Your task to perform on an android device: set the stopwatch Image 0: 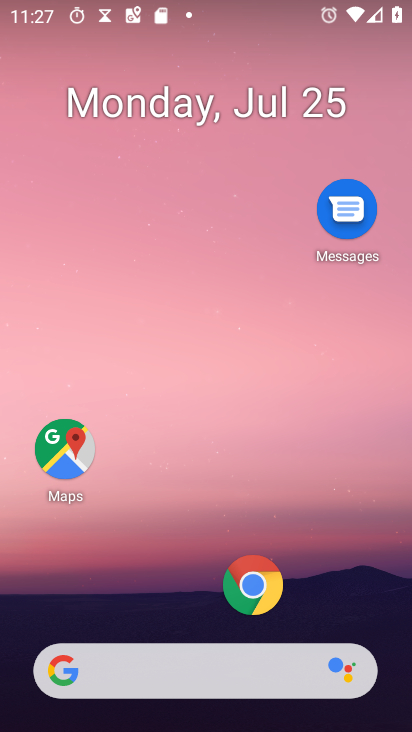
Step 0: press home button
Your task to perform on an android device: set the stopwatch Image 1: 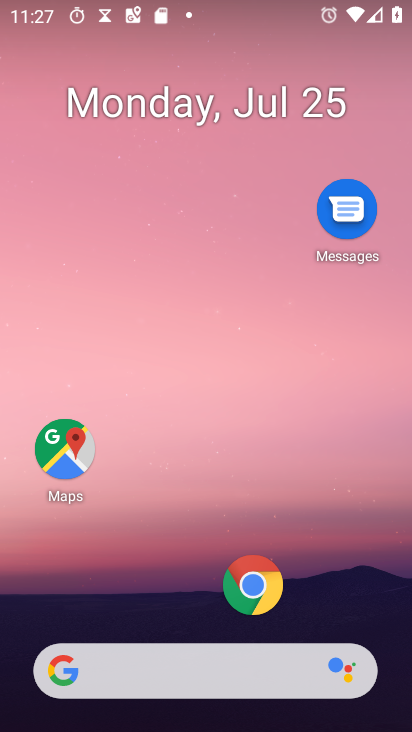
Step 1: drag from (219, 674) to (378, 24)
Your task to perform on an android device: set the stopwatch Image 2: 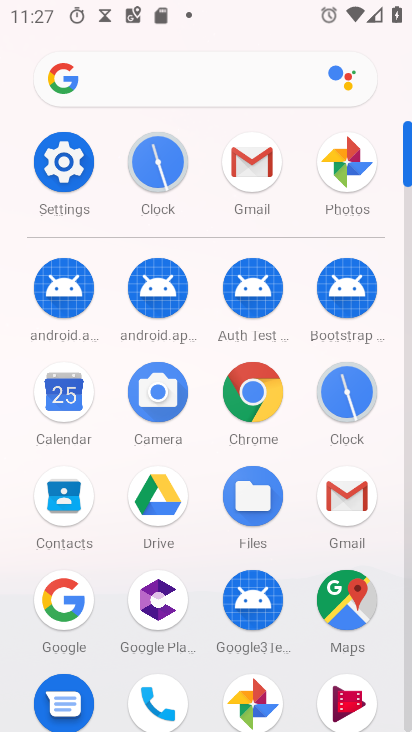
Step 2: click (164, 163)
Your task to perform on an android device: set the stopwatch Image 3: 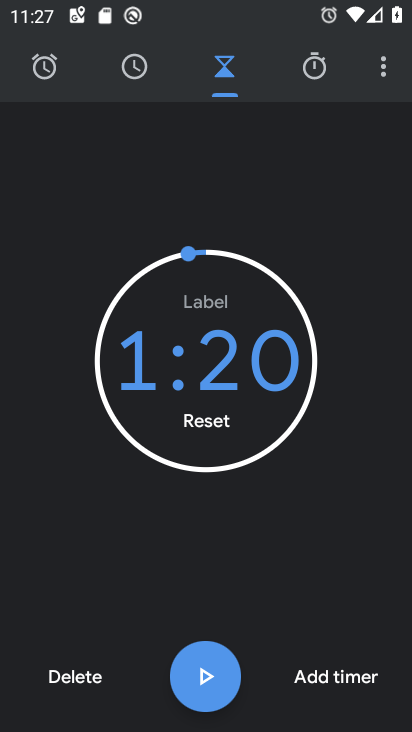
Step 3: click (319, 74)
Your task to perform on an android device: set the stopwatch Image 4: 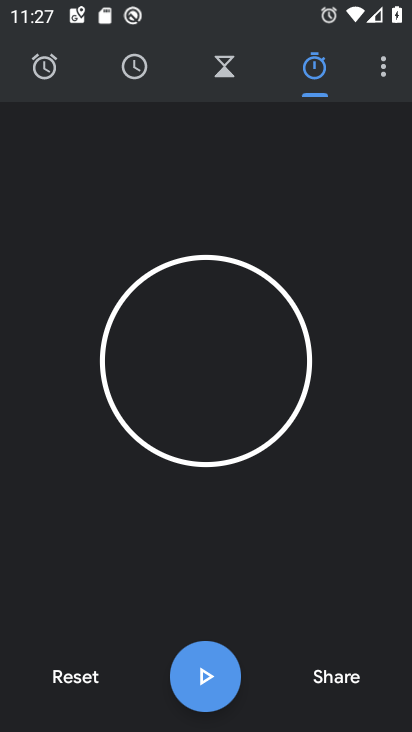
Step 4: click (85, 673)
Your task to perform on an android device: set the stopwatch Image 5: 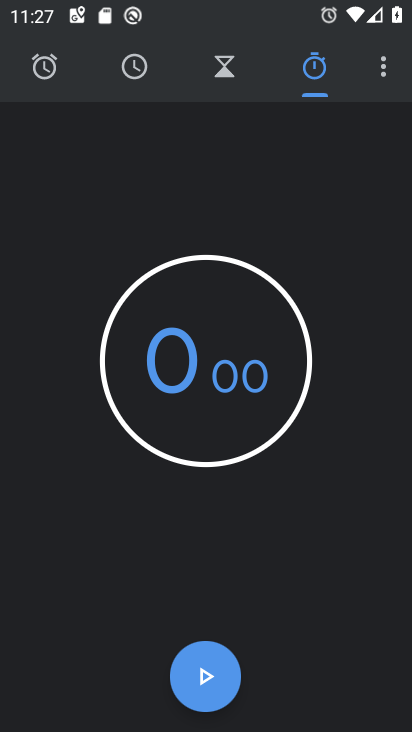
Step 5: click (212, 373)
Your task to perform on an android device: set the stopwatch Image 6: 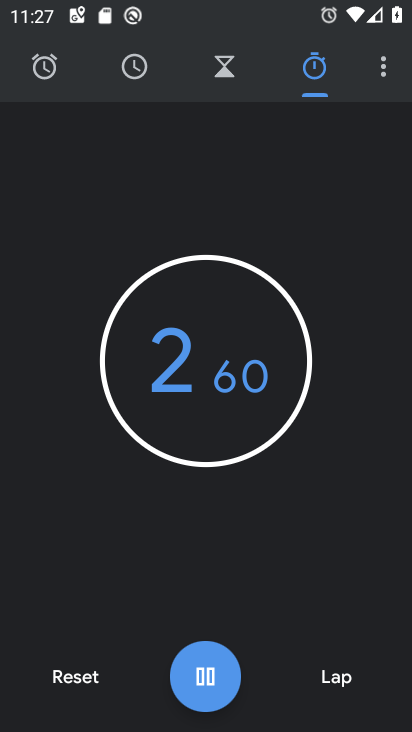
Step 6: click (212, 373)
Your task to perform on an android device: set the stopwatch Image 7: 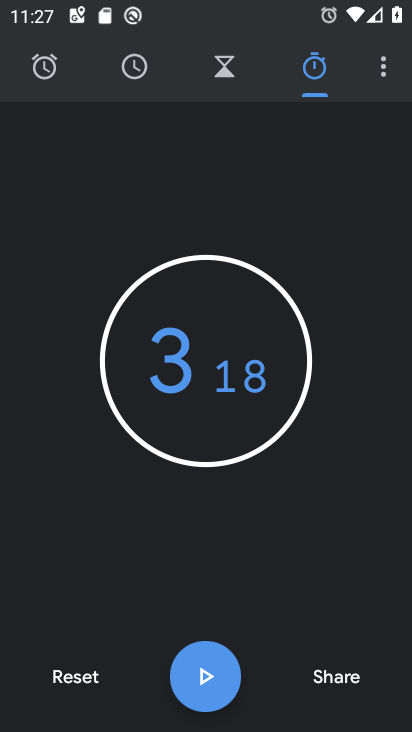
Step 7: task complete